Your task to perform on an android device: See recent photos Image 0: 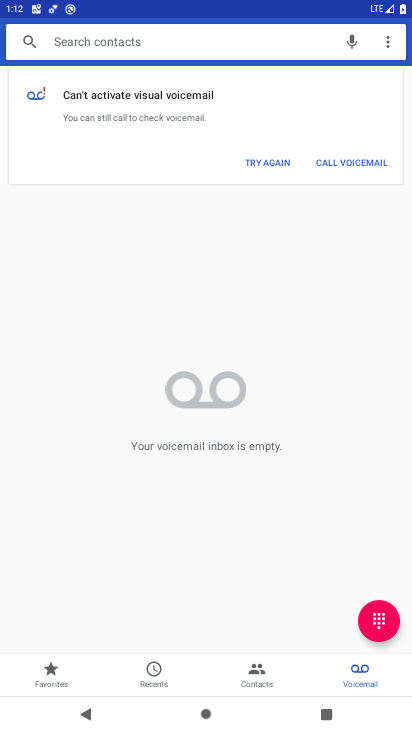
Step 0: press home button
Your task to perform on an android device: See recent photos Image 1: 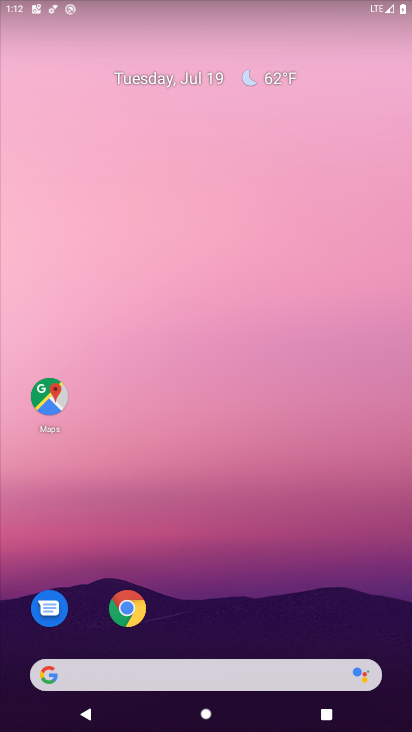
Step 1: drag from (215, 632) to (257, 122)
Your task to perform on an android device: See recent photos Image 2: 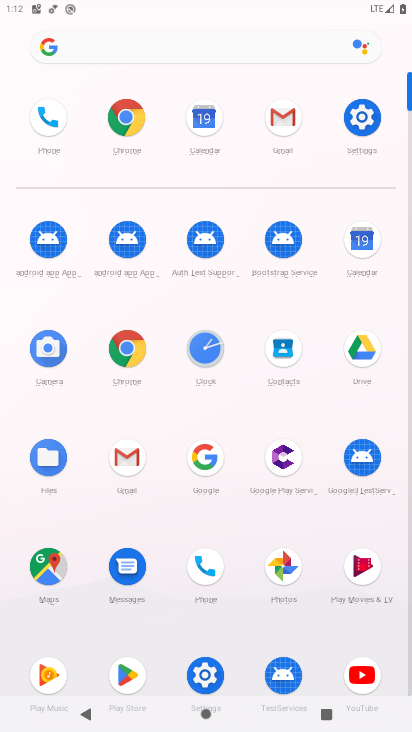
Step 2: click (285, 558)
Your task to perform on an android device: See recent photos Image 3: 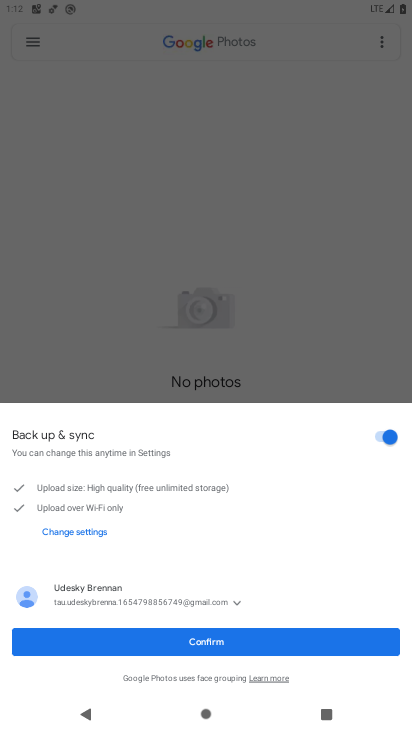
Step 3: click (203, 637)
Your task to perform on an android device: See recent photos Image 4: 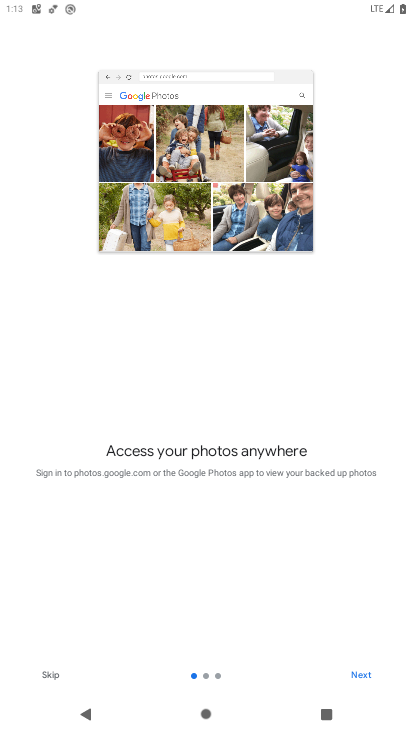
Step 4: click (360, 670)
Your task to perform on an android device: See recent photos Image 5: 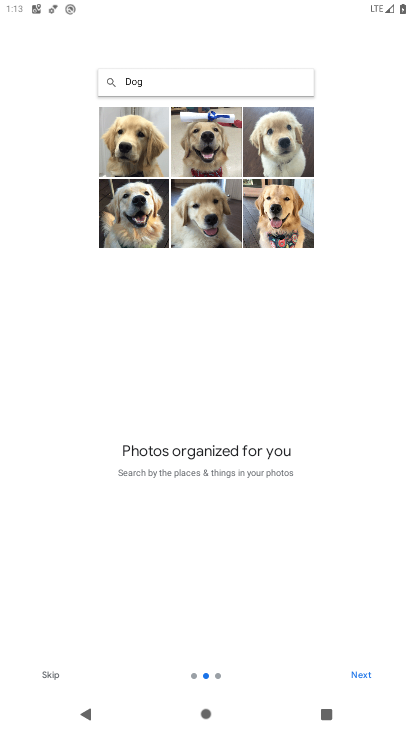
Step 5: click (370, 676)
Your task to perform on an android device: See recent photos Image 6: 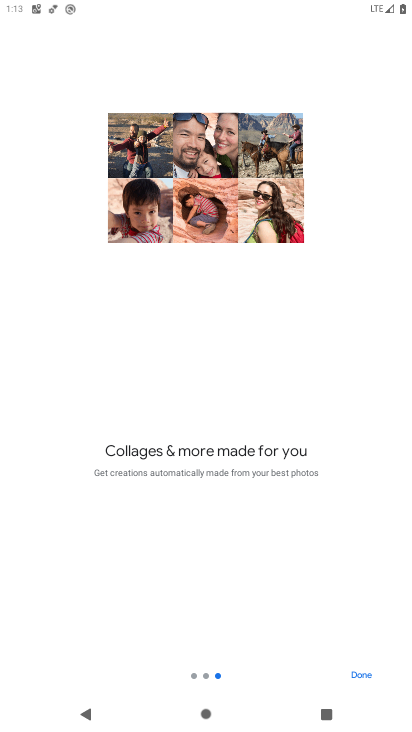
Step 6: click (370, 676)
Your task to perform on an android device: See recent photos Image 7: 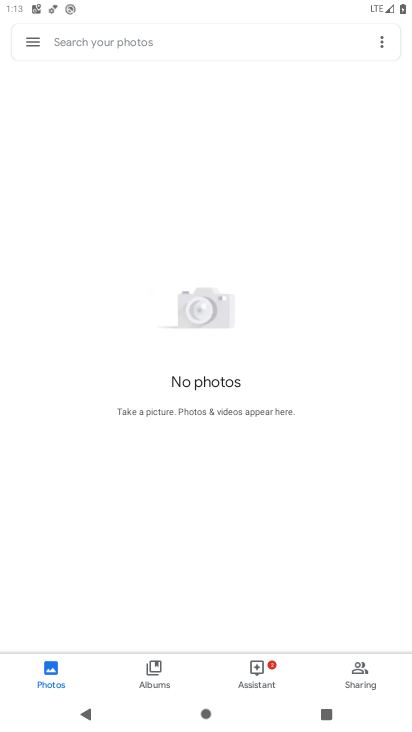
Step 7: task complete